Your task to perform on an android device: change your default location settings in chrome Image 0: 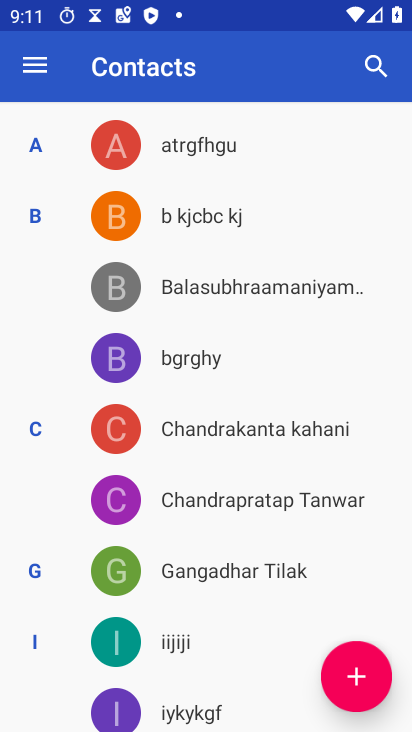
Step 0: press home button
Your task to perform on an android device: change your default location settings in chrome Image 1: 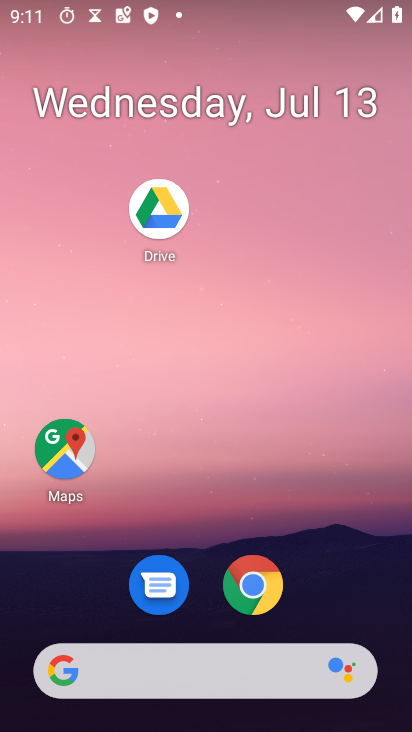
Step 1: click (253, 583)
Your task to perform on an android device: change your default location settings in chrome Image 2: 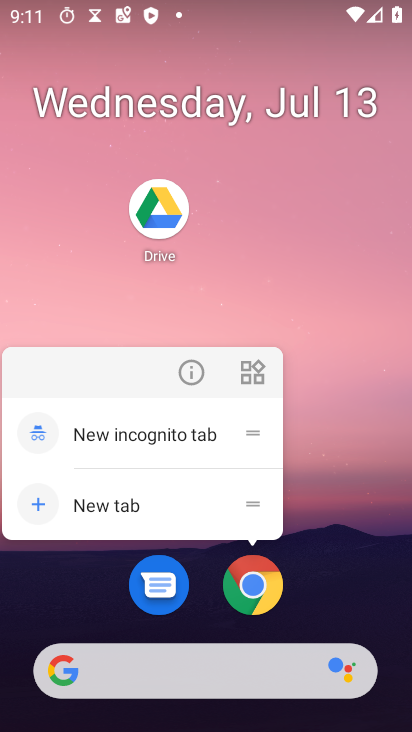
Step 2: click (256, 594)
Your task to perform on an android device: change your default location settings in chrome Image 3: 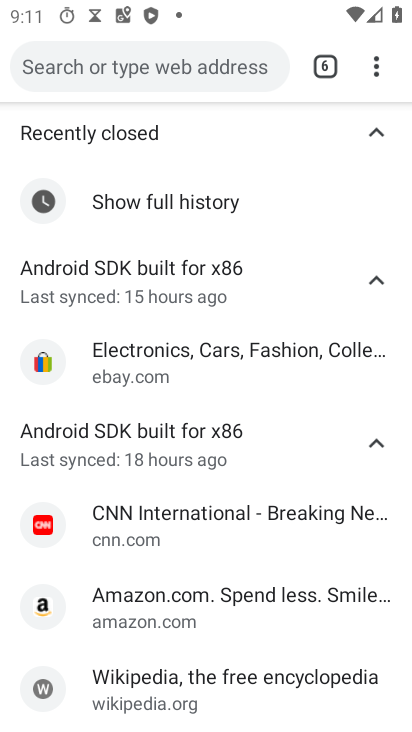
Step 3: drag from (372, 73) to (223, 551)
Your task to perform on an android device: change your default location settings in chrome Image 4: 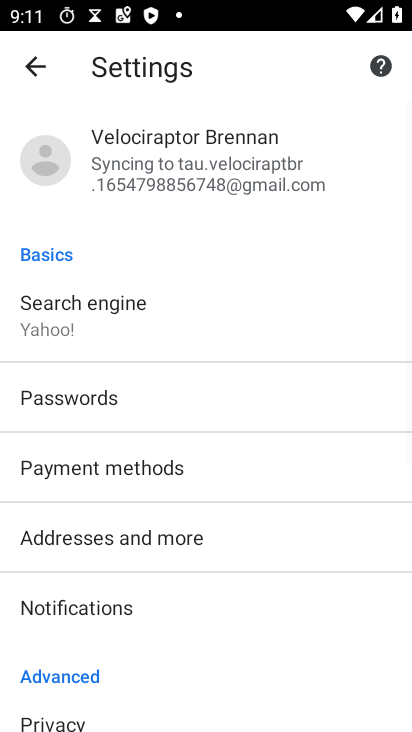
Step 4: drag from (170, 605) to (373, 120)
Your task to perform on an android device: change your default location settings in chrome Image 5: 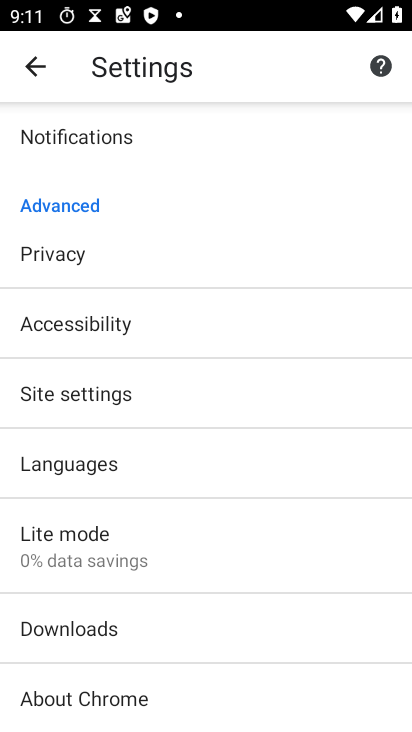
Step 5: click (105, 392)
Your task to perform on an android device: change your default location settings in chrome Image 6: 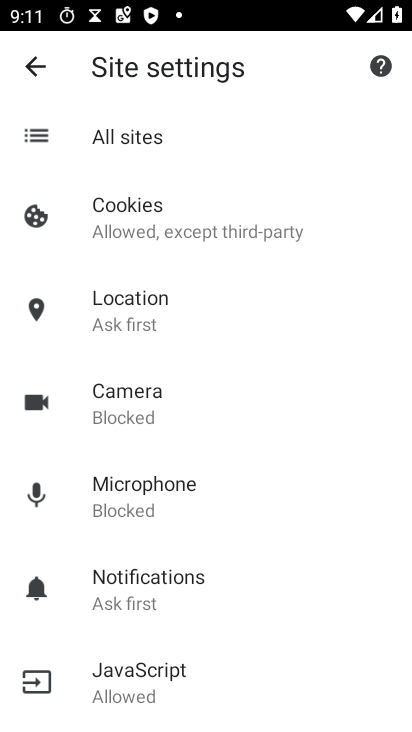
Step 6: click (138, 316)
Your task to perform on an android device: change your default location settings in chrome Image 7: 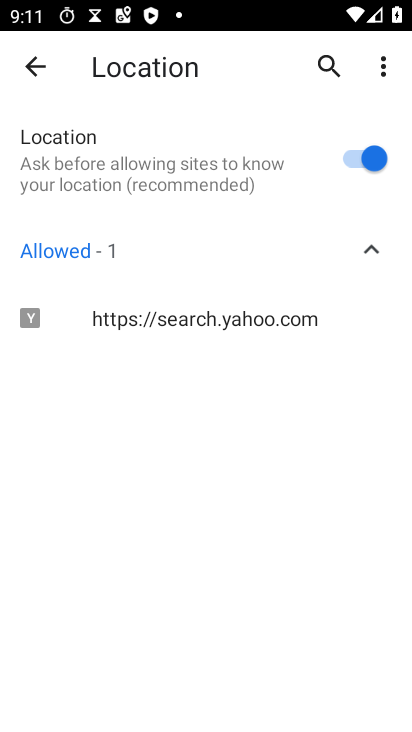
Step 7: click (352, 159)
Your task to perform on an android device: change your default location settings in chrome Image 8: 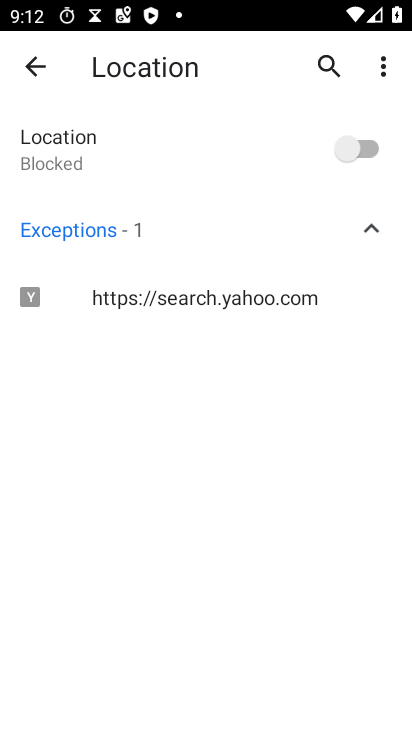
Step 8: task complete